Your task to perform on an android device: change notifications settings Image 0: 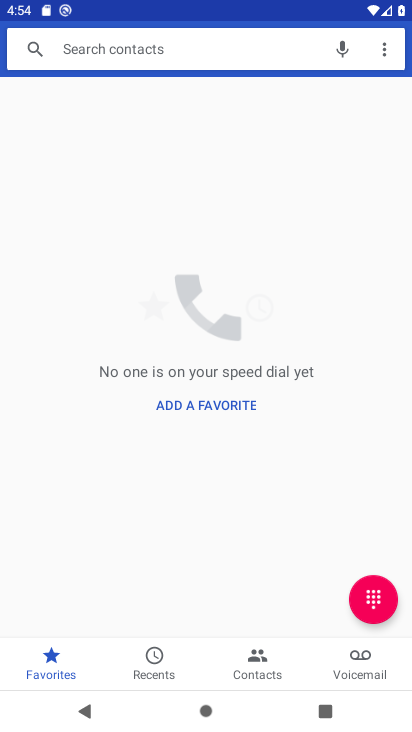
Step 0: press home button
Your task to perform on an android device: change notifications settings Image 1: 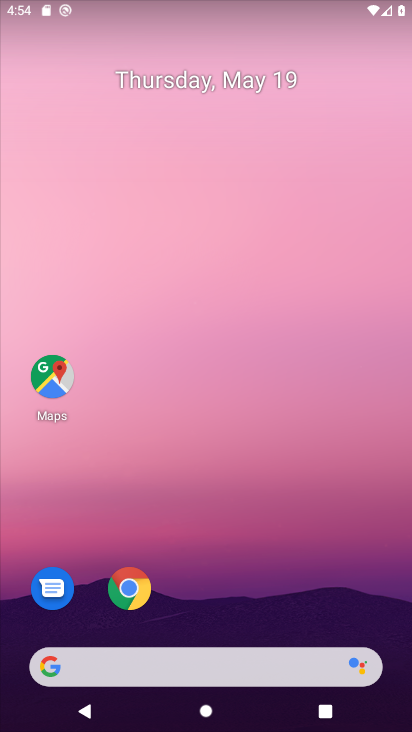
Step 1: drag from (171, 597) to (179, 194)
Your task to perform on an android device: change notifications settings Image 2: 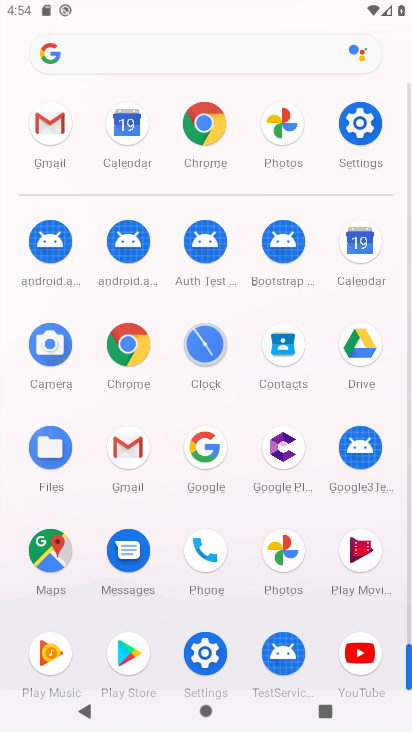
Step 2: click (362, 160)
Your task to perform on an android device: change notifications settings Image 3: 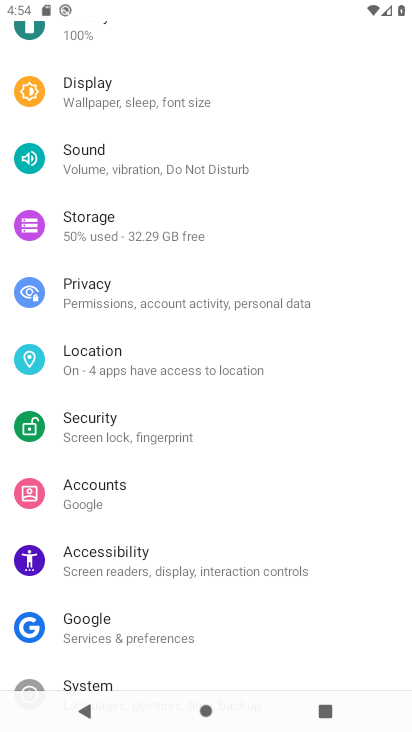
Step 3: drag from (217, 257) to (199, 518)
Your task to perform on an android device: change notifications settings Image 4: 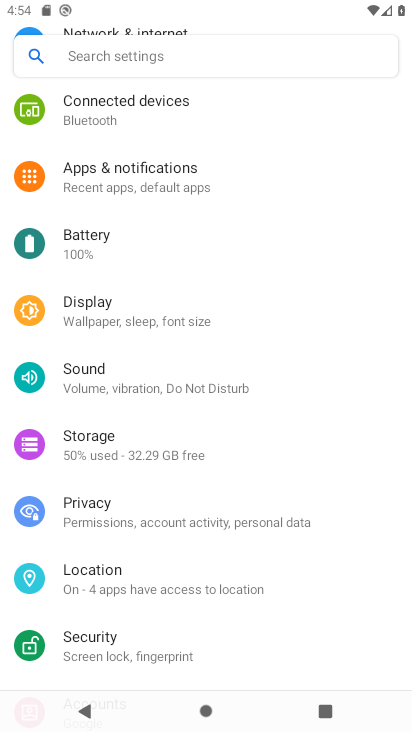
Step 4: click (189, 182)
Your task to perform on an android device: change notifications settings Image 5: 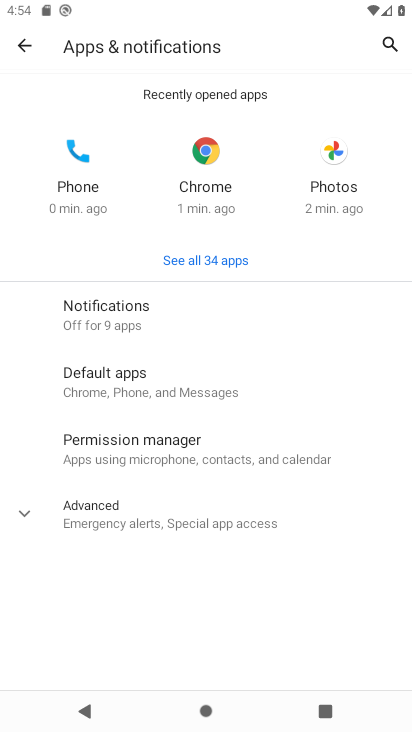
Step 5: click (146, 316)
Your task to perform on an android device: change notifications settings Image 6: 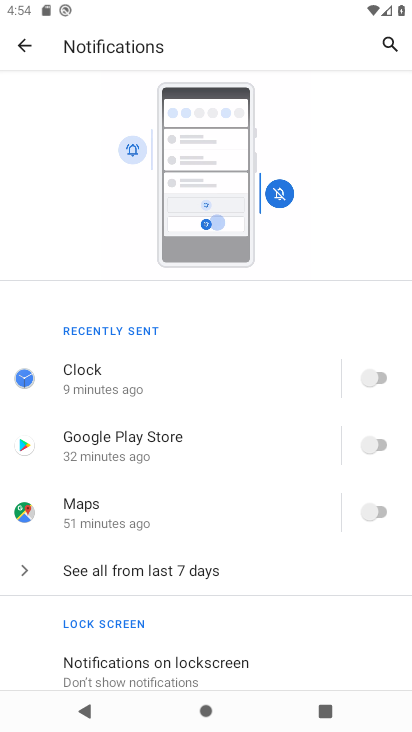
Step 6: click (381, 376)
Your task to perform on an android device: change notifications settings Image 7: 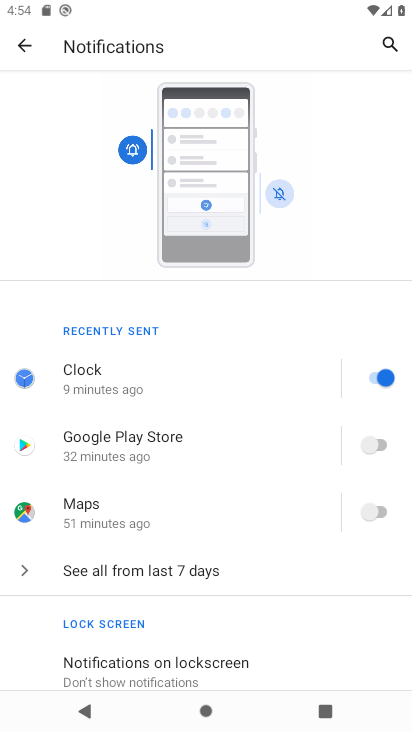
Step 7: click (388, 446)
Your task to perform on an android device: change notifications settings Image 8: 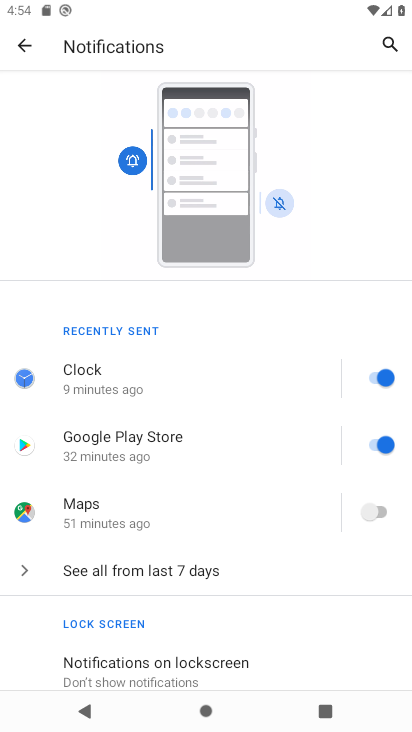
Step 8: click (384, 511)
Your task to perform on an android device: change notifications settings Image 9: 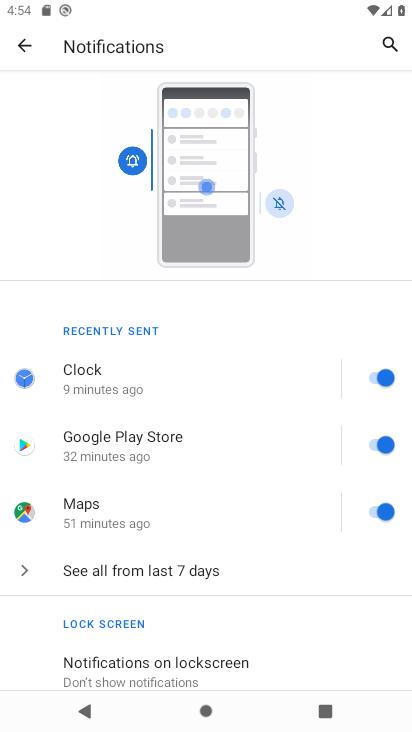
Step 9: click (214, 576)
Your task to perform on an android device: change notifications settings Image 10: 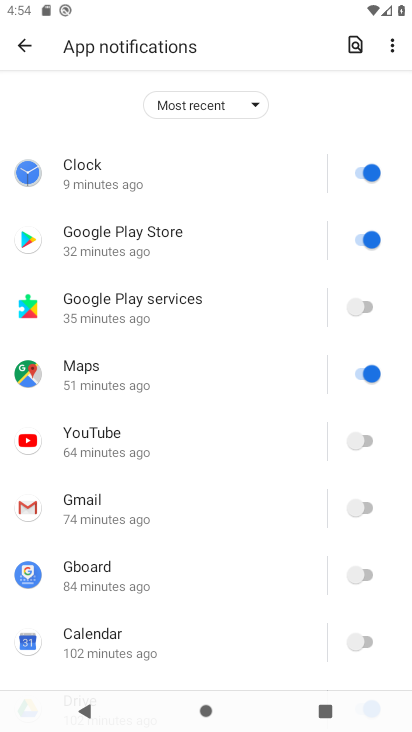
Step 10: click (372, 300)
Your task to perform on an android device: change notifications settings Image 11: 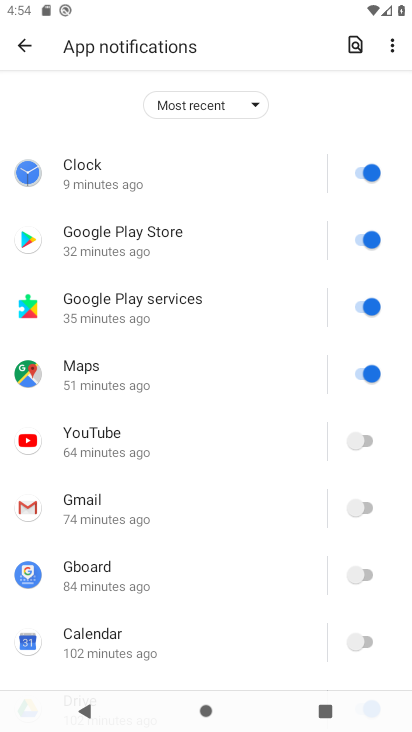
Step 11: click (375, 444)
Your task to perform on an android device: change notifications settings Image 12: 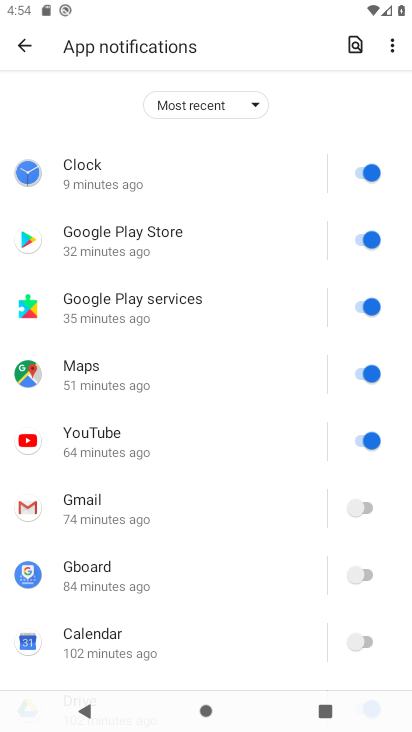
Step 12: click (364, 507)
Your task to perform on an android device: change notifications settings Image 13: 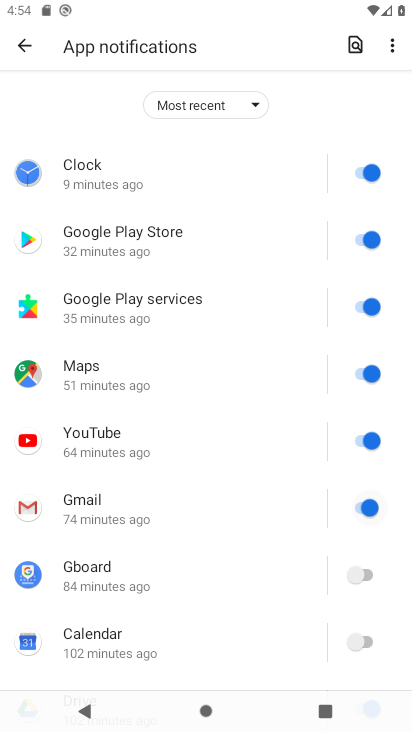
Step 13: click (365, 572)
Your task to perform on an android device: change notifications settings Image 14: 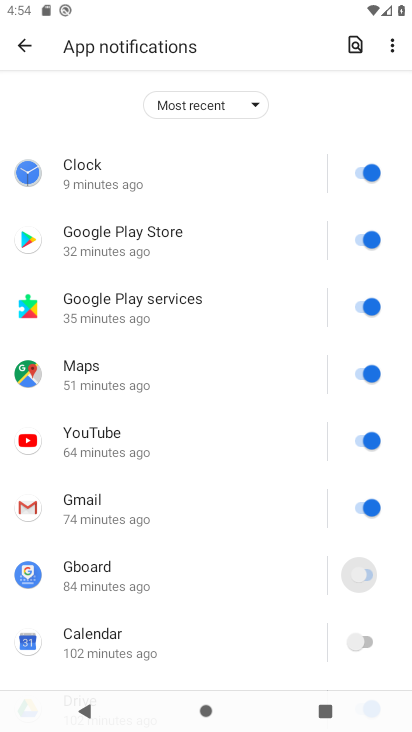
Step 14: click (370, 630)
Your task to perform on an android device: change notifications settings Image 15: 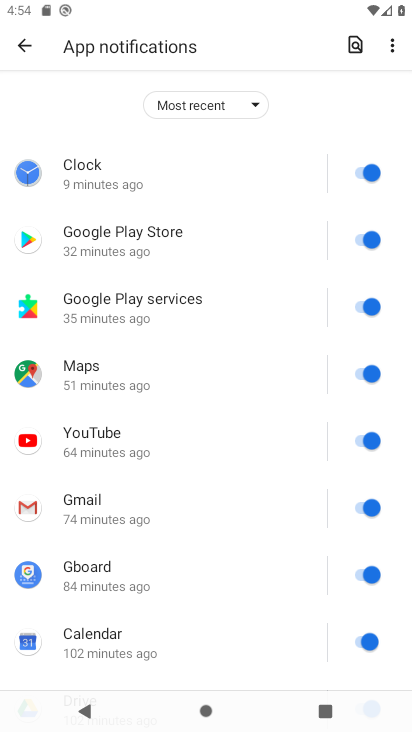
Step 15: drag from (237, 632) to (239, 372)
Your task to perform on an android device: change notifications settings Image 16: 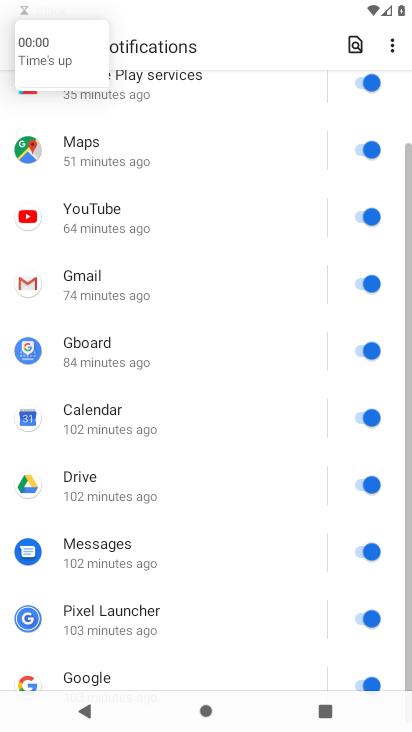
Step 16: drag from (346, 625) to (343, 312)
Your task to perform on an android device: change notifications settings Image 17: 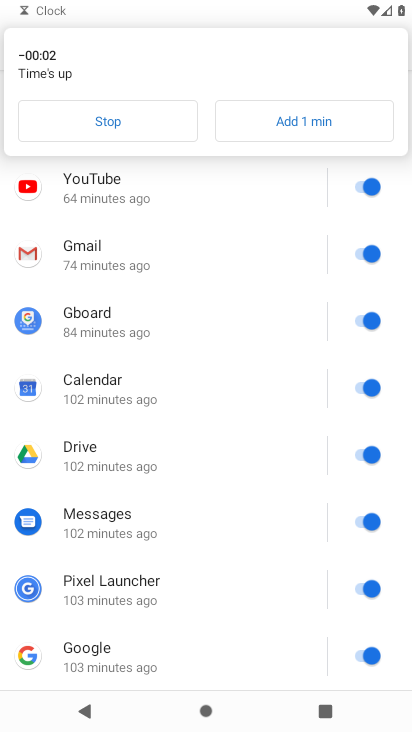
Step 17: click (126, 107)
Your task to perform on an android device: change notifications settings Image 18: 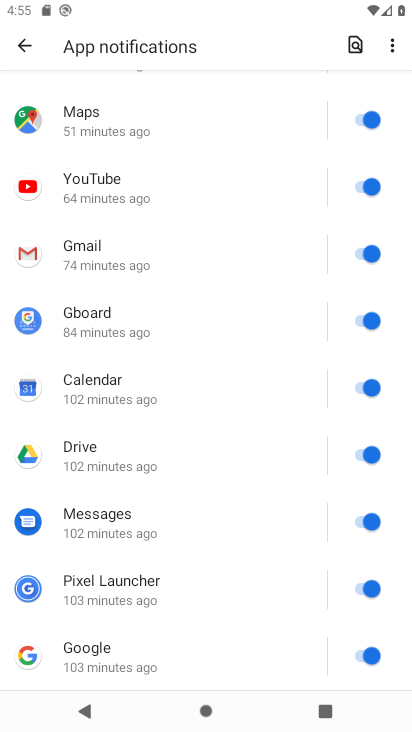
Step 18: task complete